Your task to perform on an android device: check out phone information Image 0: 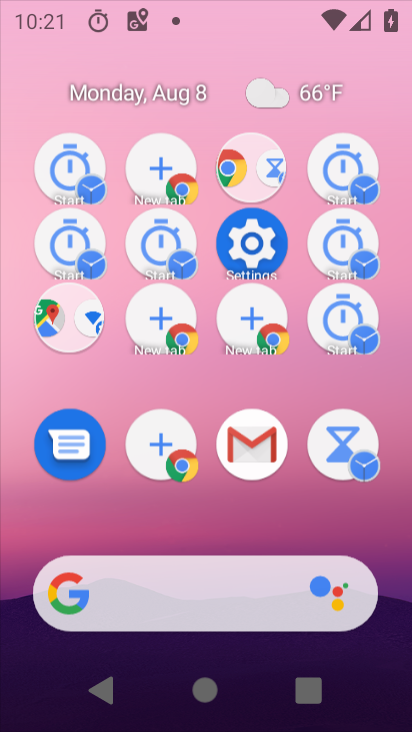
Step 0: drag from (234, 622) to (187, 249)
Your task to perform on an android device: check out phone information Image 1: 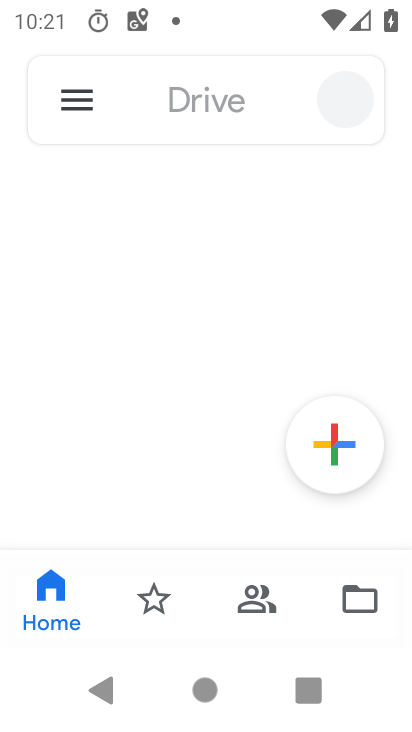
Step 1: drag from (216, 323) to (215, 257)
Your task to perform on an android device: check out phone information Image 2: 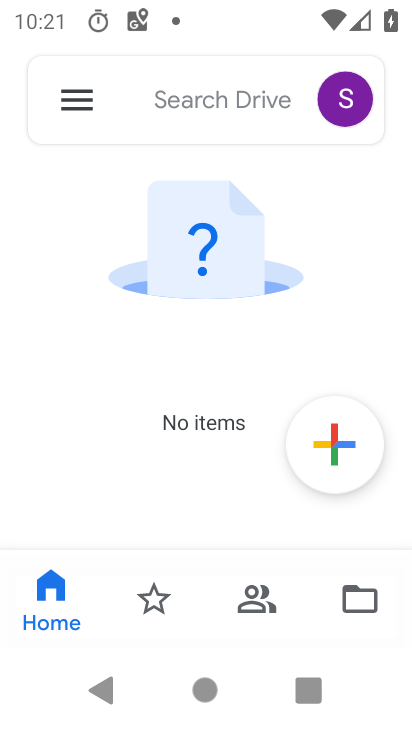
Step 2: press back button
Your task to perform on an android device: check out phone information Image 3: 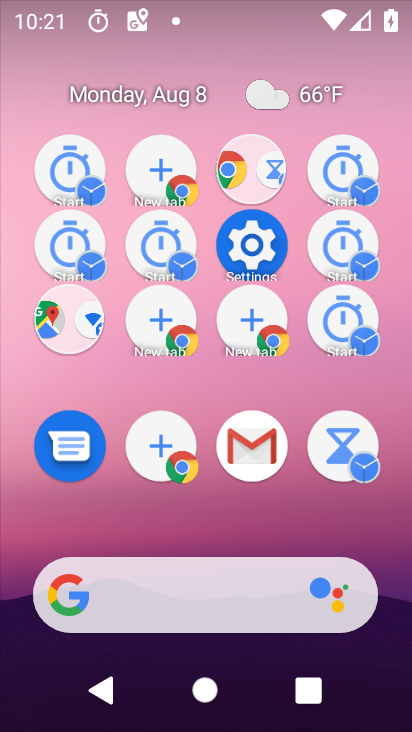
Step 3: drag from (240, 615) to (175, 145)
Your task to perform on an android device: check out phone information Image 4: 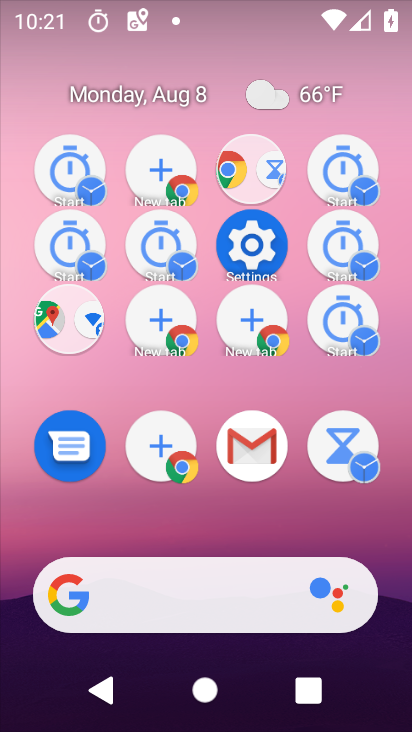
Step 4: click (238, 249)
Your task to perform on an android device: check out phone information Image 5: 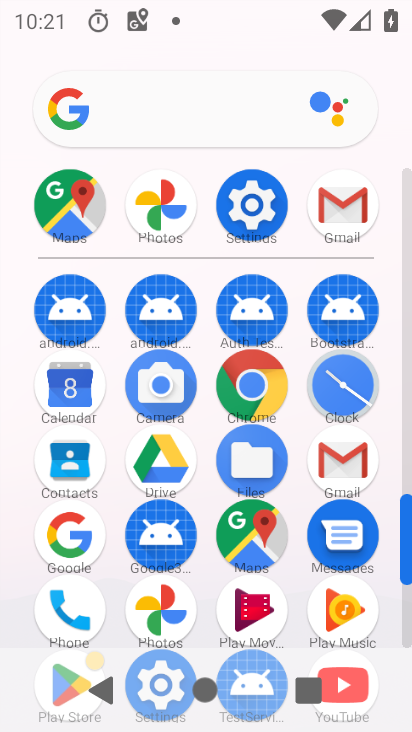
Step 5: drag from (218, 339) to (203, 225)
Your task to perform on an android device: check out phone information Image 6: 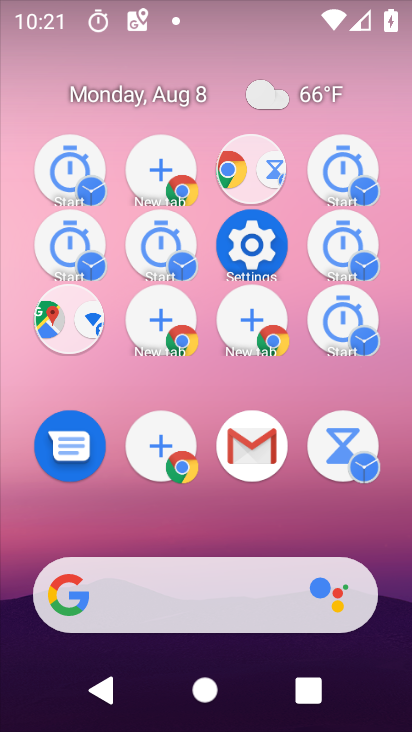
Step 6: click (251, 245)
Your task to perform on an android device: check out phone information Image 7: 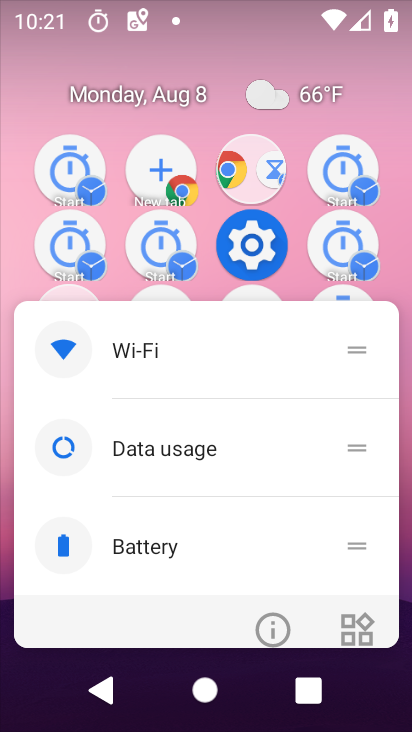
Step 7: click (249, 250)
Your task to perform on an android device: check out phone information Image 8: 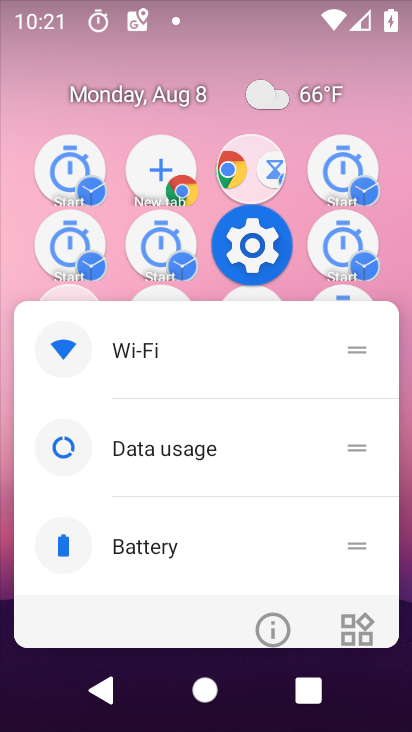
Step 8: click (253, 256)
Your task to perform on an android device: check out phone information Image 9: 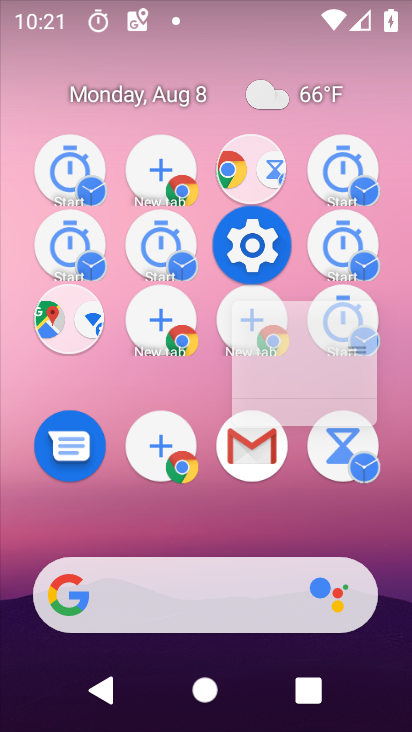
Step 9: click (253, 253)
Your task to perform on an android device: check out phone information Image 10: 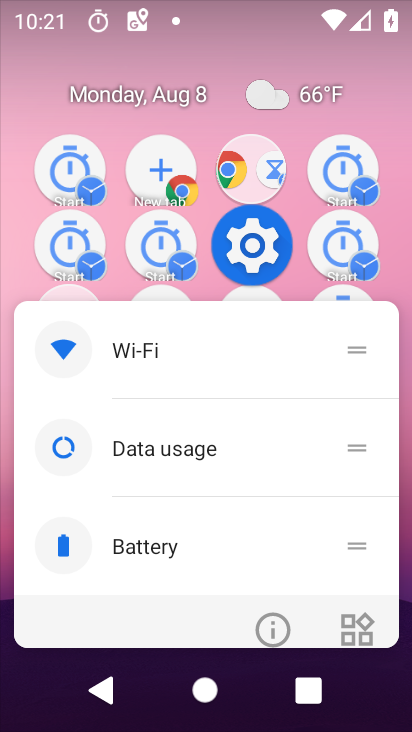
Step 10: click (256, 243)
Your task to perform on an android device: check out phone information Image 11: 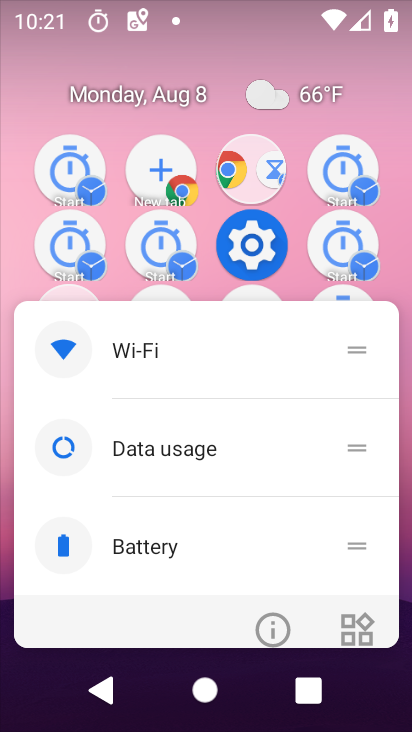
Step 11: press back button
Your task to perform on an android device: check out phone information Image 12: 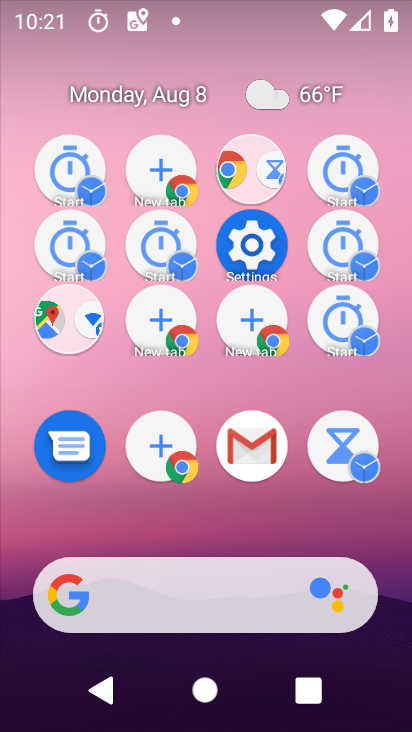
Step 12: click (255, 251)
Your task to perform on an android device: check out phone information Image 13: 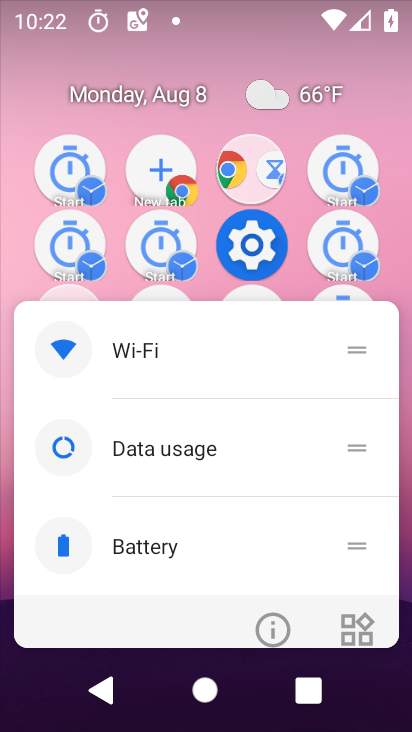
Step 13: click (188, 363)
Your task to perform on an android device: check out phone information Image 14: 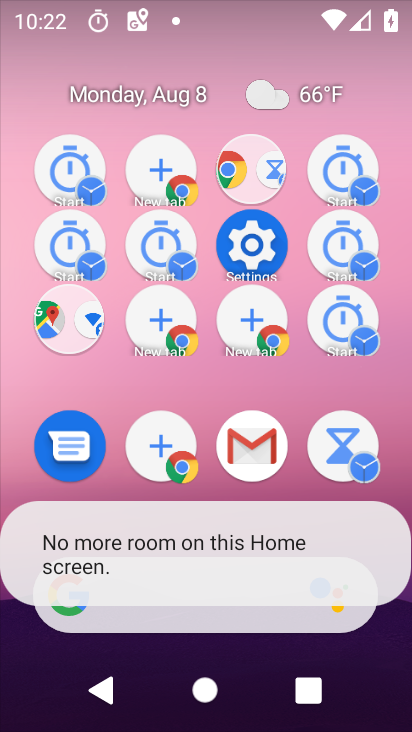
Step 14: press home button
Your task to perform on an android device: check out phone information Image 15: 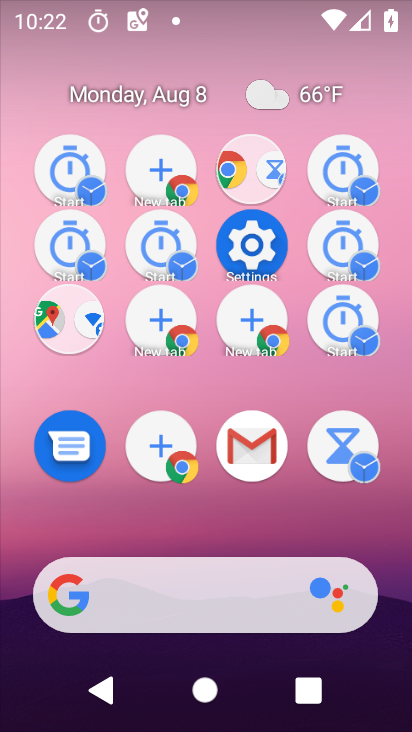
Step 15: drag from (237, 642) to (233, 305)
Your task to perform on an android device: check out phone information Image 16: 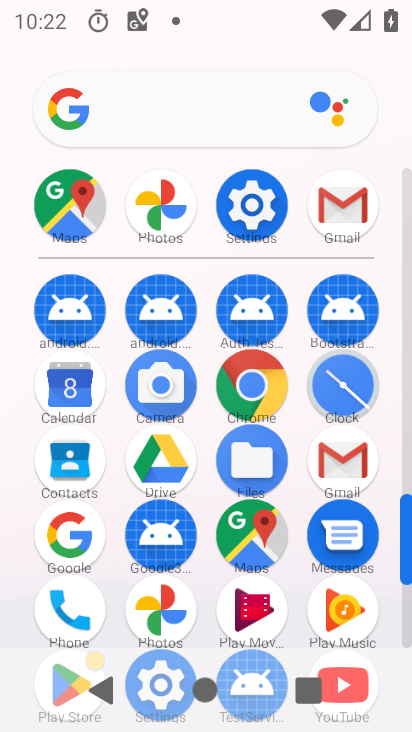
Step 16: click (240, 208)
Your task to perform on an android device: check out phone information Image 17: 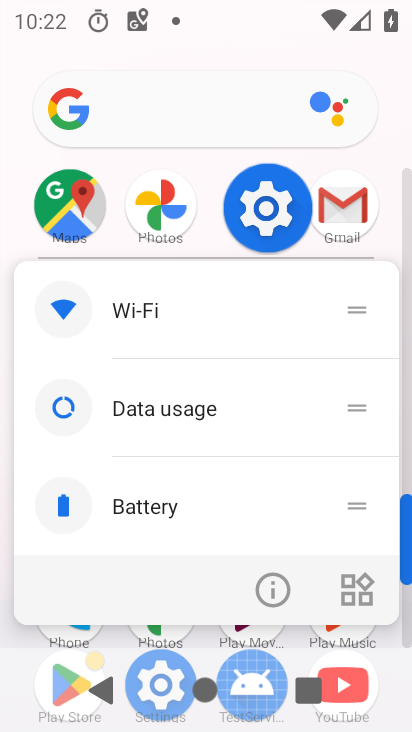
Step 17: click (256, 211)
Your task to perform on an android device: check out phone information Image 18: 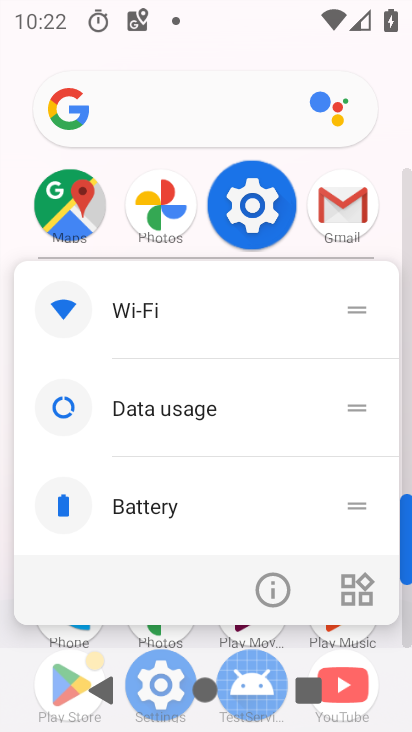
Step 18: click (258, 210)
Your task to perform on an android device: check out phone information Image 19: 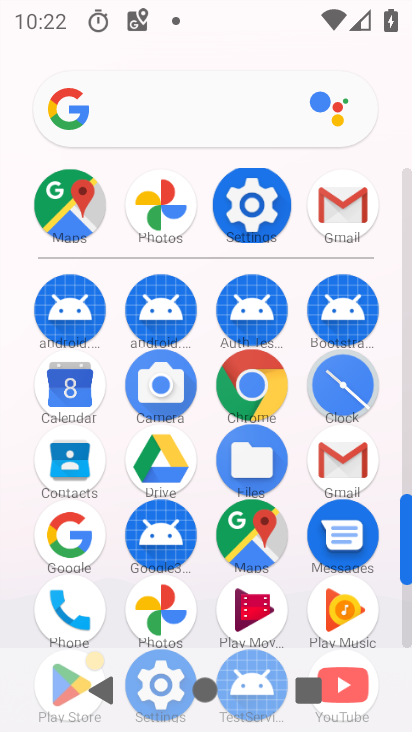
Step 19: click (258, 210)
Your task to perform on an android device: check out phone information Image 20: 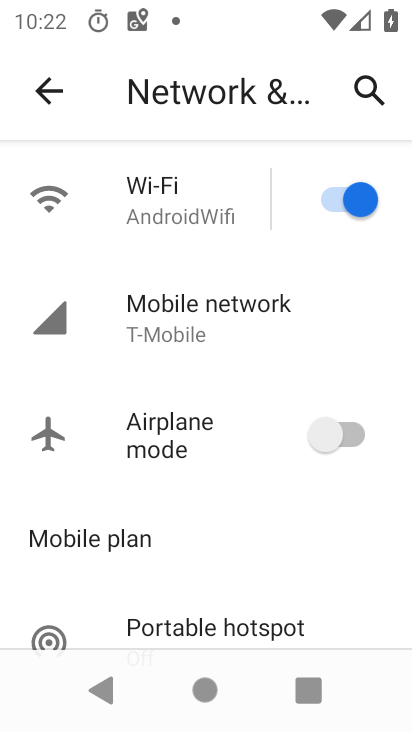
Step 20: click (43, 91)
Your task to perform on an android device: check out phone information Image 21: 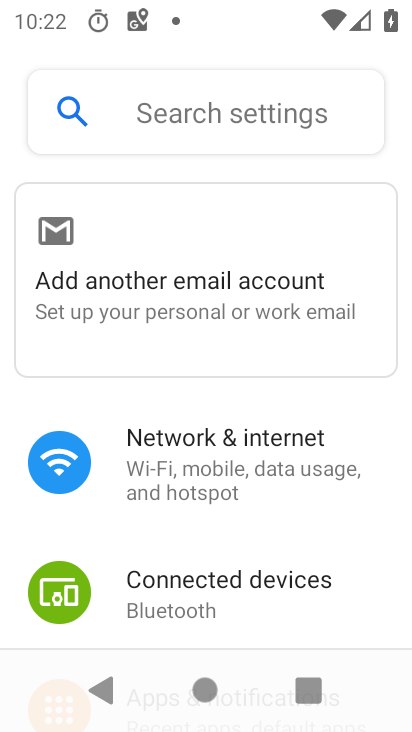
Step 21: drag from (260, 574) to (209, 312)
Your task to perform on an android device: check out phone information Image 22: 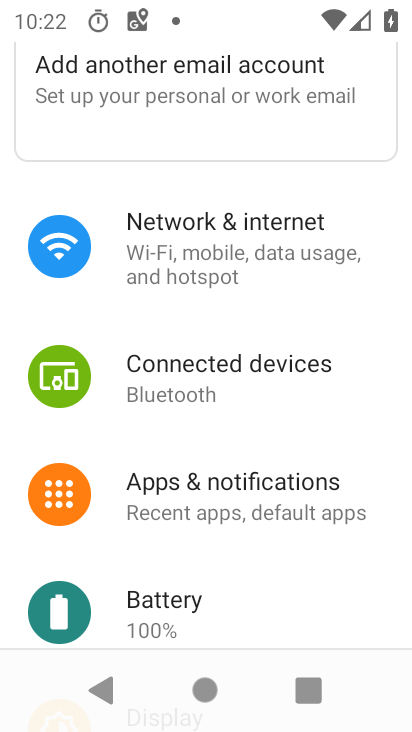
Step 22: drag from (232, 489) to (233, 275)
Your task to perform on an android device: check out phone information Image 23: 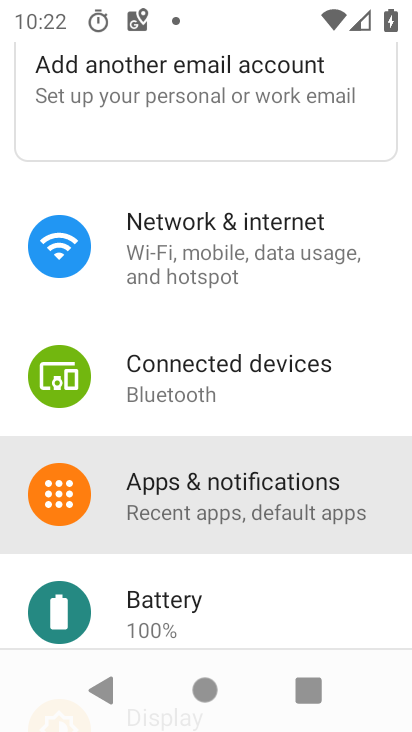
Step 23: drag from (214, 541) to (214, 273)
Your task to perform on an android device: check out phone information Image 24: 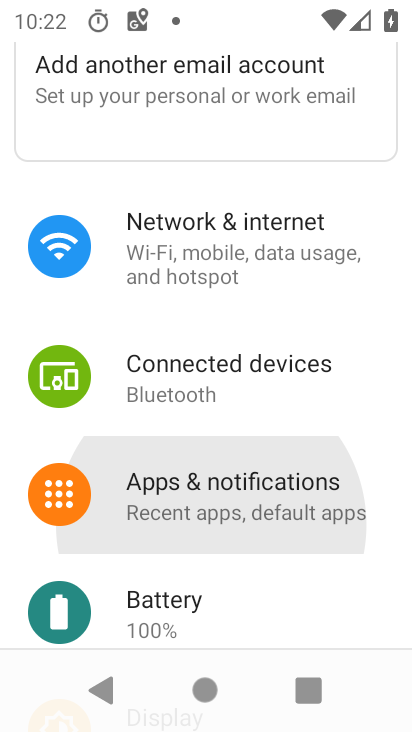
Step 24: drag from (233, 481) to (235, 311)
Your task to perform on an android device: check out phone information Image 25: 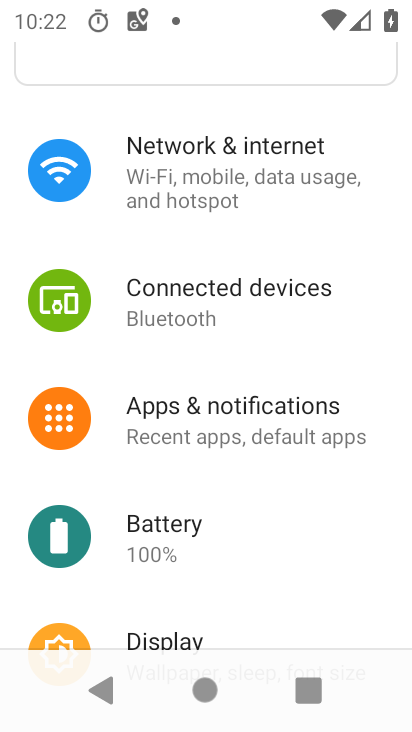
Step 25: drag from (210, 505) to (210, 415)
Your task to perform on an android device: check out phone information Image 26: 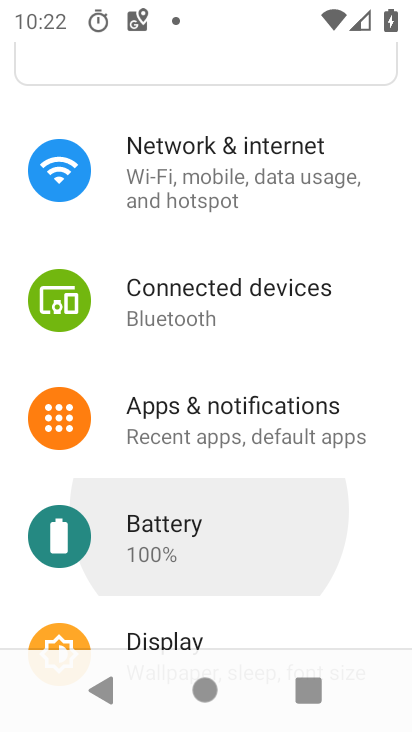
Step 26: drag from (224, 535) to (228, 227)
Your task to perform on an android device: check out phone information Image 27: 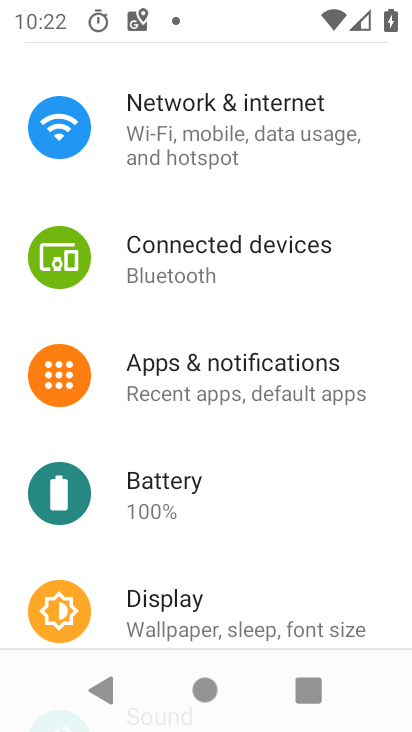
Step 27: drag from (219, 442) to (166, 296)
Your task to perform on an android device: check out phone information Image 28: 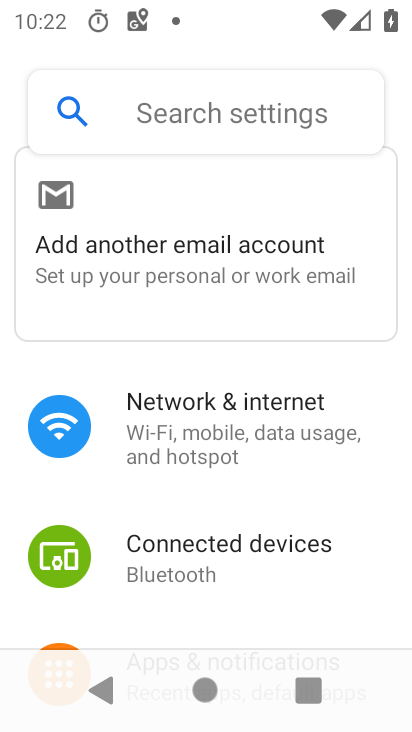
Step 28: drag from (186, 400) to (213, 256)
Your task to perform on an android device: check out phone information Image 29: 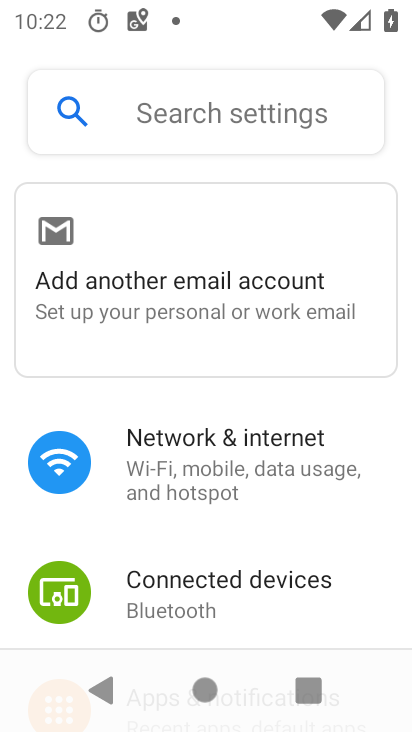
Step 29: drag from (197, 533) to (217, 278)
Your task to perform on an android device: check out phone information Image 30: 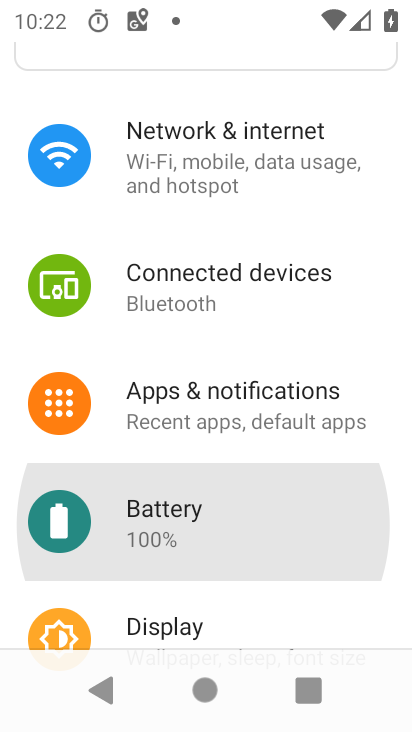
Step 30: drag from (228, 482) to (241, 296)
Your task to perform on an android device: check out phone information Image 31: 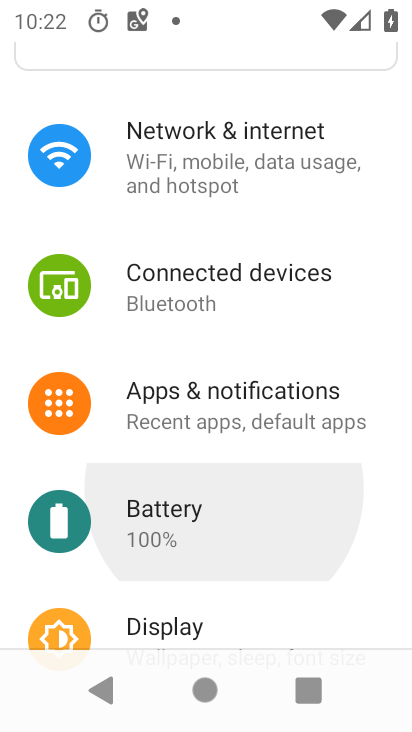
Step 31: drag from (230, 536) to (277, 234)
Your task to perform on an android device: check out phone information Image 32: 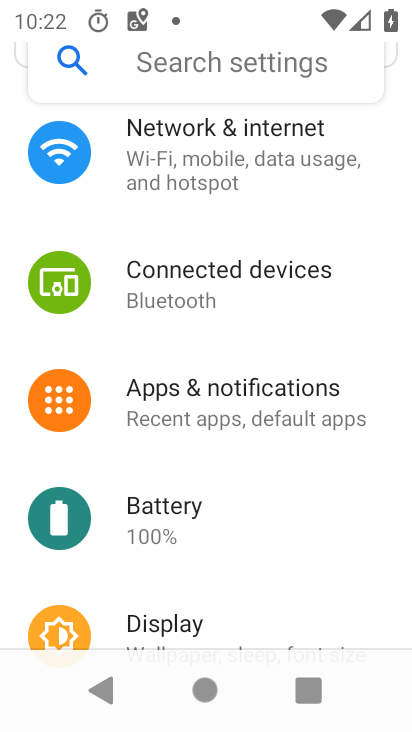
Step 32: drag from (239, 364) to (235, 182)
Your task to perform on an android device: check out phone information Image 33: 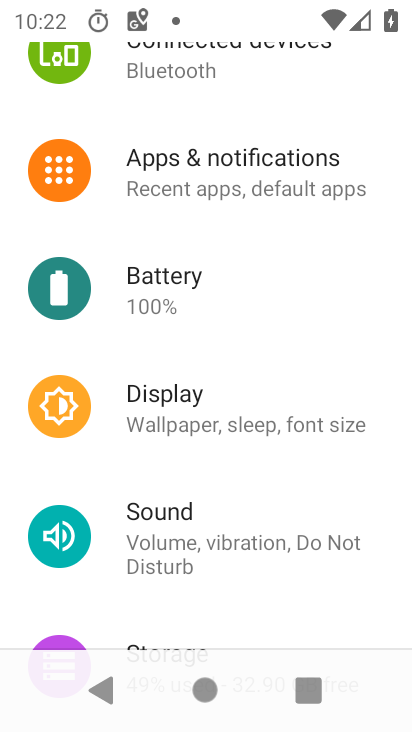
Step 33: drag from (241, 201) to (142, 96)
Your task to perform on an android device: check out phone information Image 34: 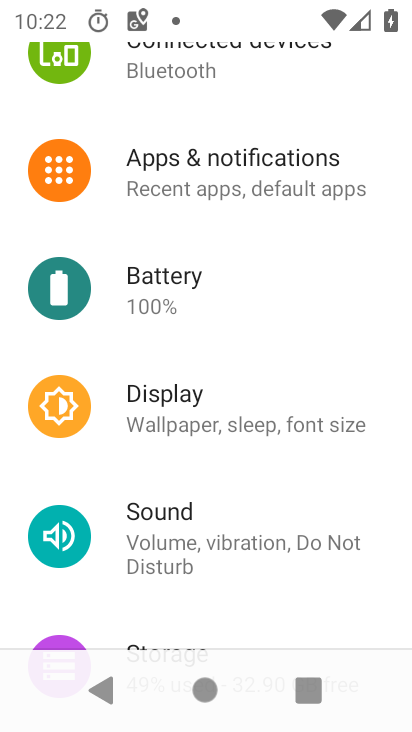
Step 34: drag from (157, 380) to (147, 238)
Your task to perform on an android device: check out phone information Image 35: 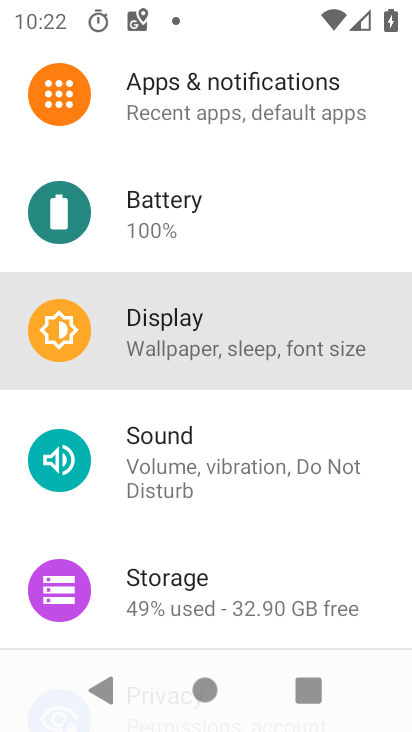
Step 35: drag from (188, 329) to (271, 148)
Your task to perform on an android device: check out phone information Image 36: 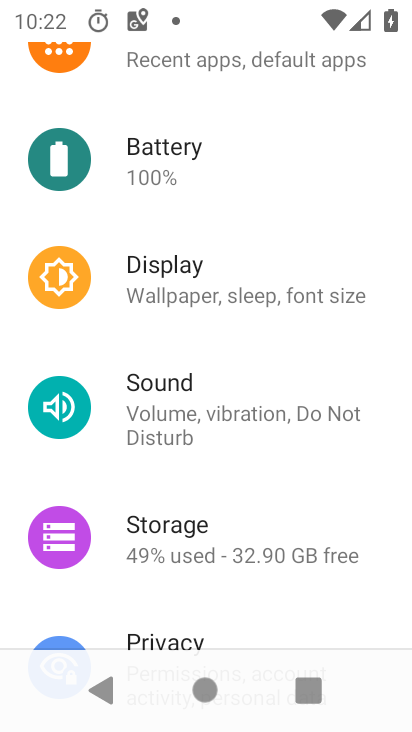
Step 36: drag from (266, 476) to (244, 200)
Your task to perform on an android device: check out phone information Image 37: 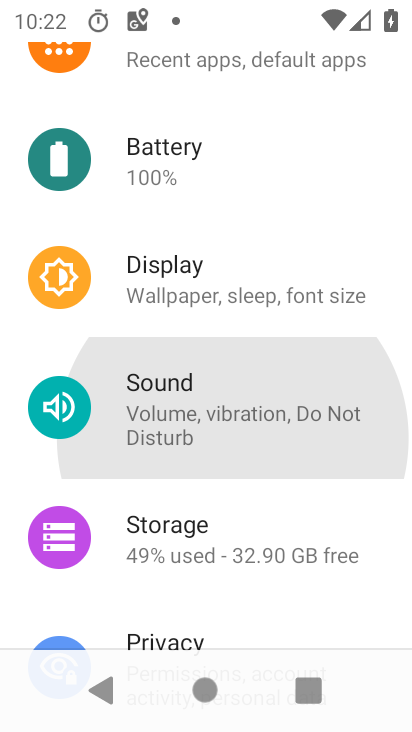
Step 37: drag from (246, 446) to (328, 200)
Your task to perform on an android device: check out phone information Image 38: 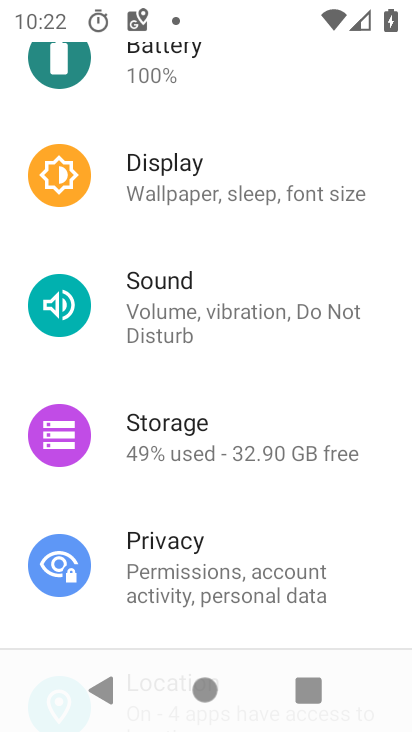
Step 38: drag from (351, 289) to (265, 258)
Your task to perform on an android device: check out phone information Image 39: 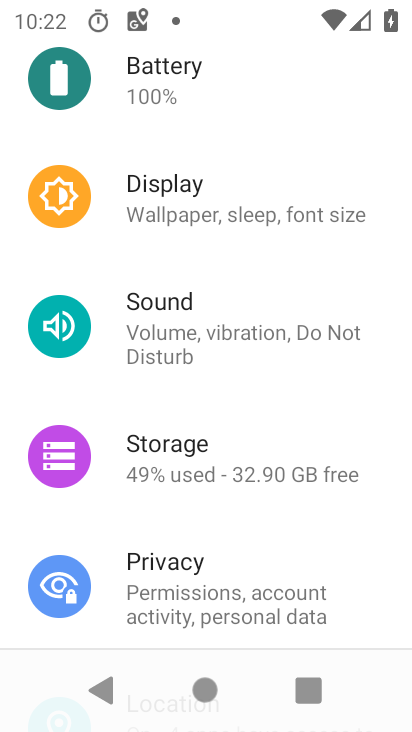
Step 39: drag from (262, 533) to (177, 173)
Your task to perform on an android device: check out phone information Image 40: 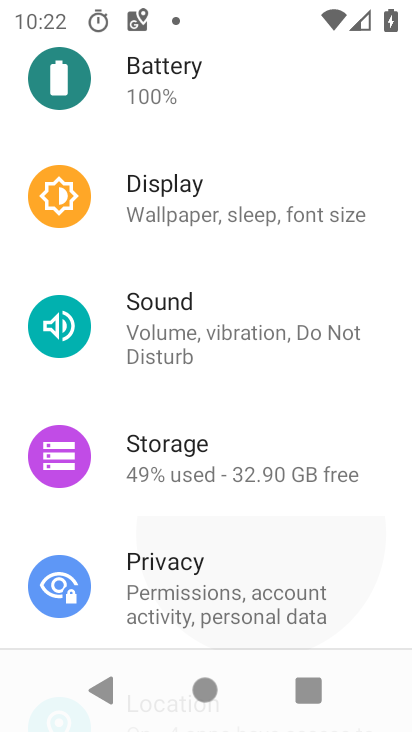
Step 40: drag from (164, 436) to (273, 218)
Your task to perform on an android device: check out phone information Image 41: 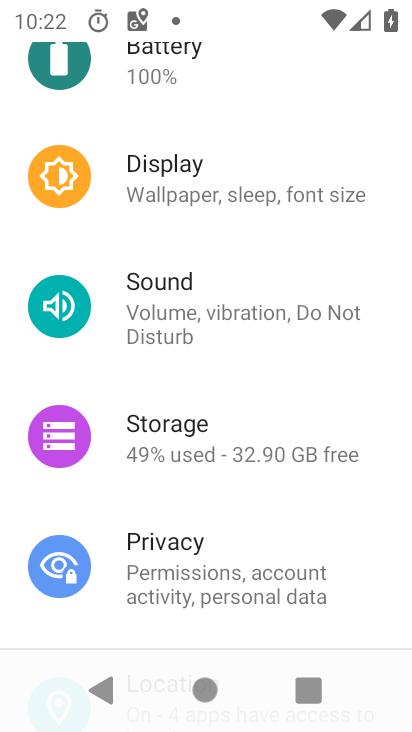
Step 41: click (245, 318)
Your task to perform on an android device: check out phone information Image 42: 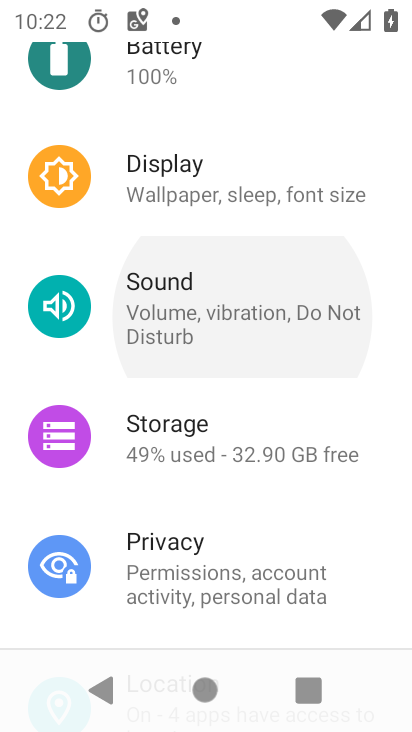
Step 42: drag from (231, 185) to (233, 358)
Your task to perform on an android device: check out phone information Image 43: 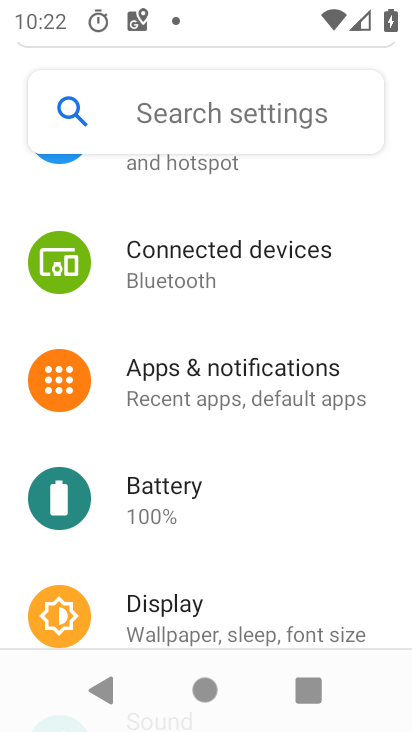
Step 43: click (303, 329)
Your task to perform on an android device: check out phone information Image 44: 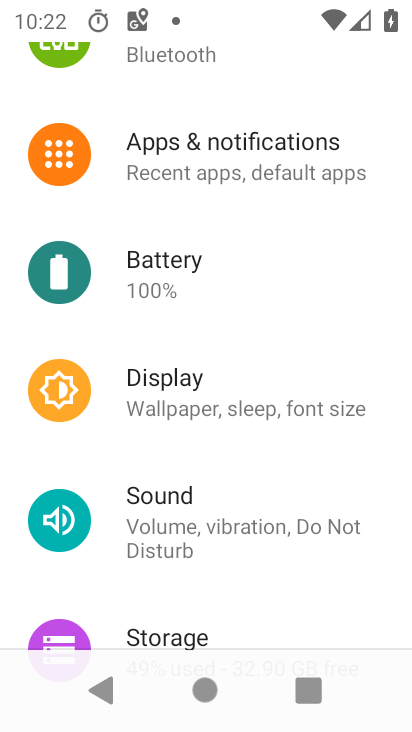
Step 44: drag from (303, 508) to (285, 238)
Your task to perform on an android device: check out phone information Image 45: 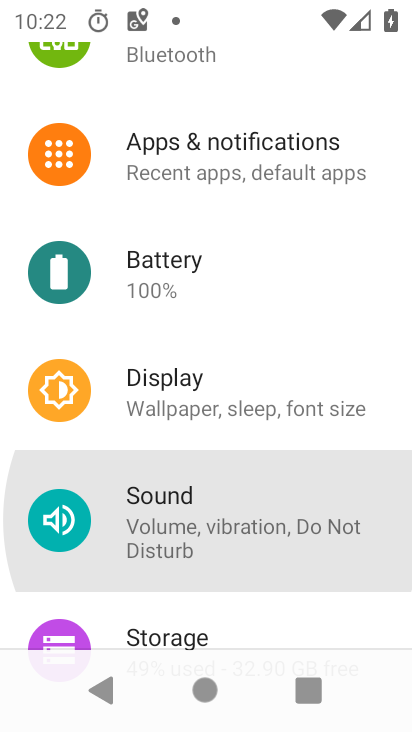
Step 45: drag from (280, 407) to (278, 230)
Your task to perform on an android device: check out phone information Image 46: 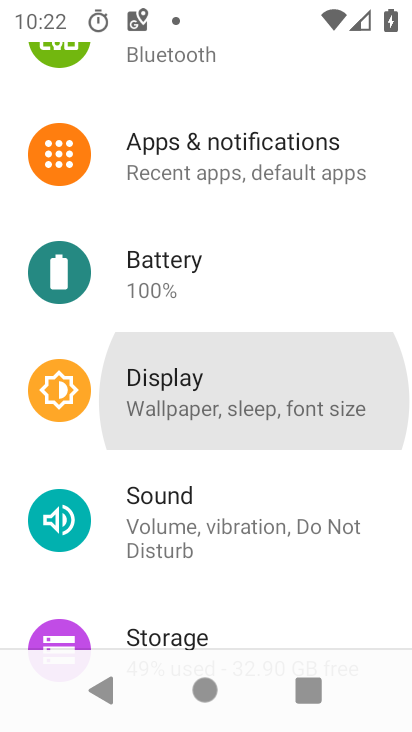
Step 46: drag from (257, 319) to (291, 264)
Your task to perform on an android device: check out phone information Image 47: 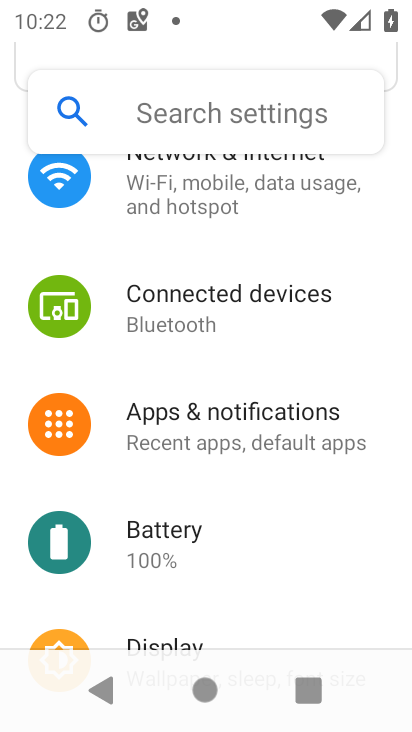
Step 47: drag from (255, 183) to (310, 203)
Your task to perform on an android device: check out phone information Image 48: 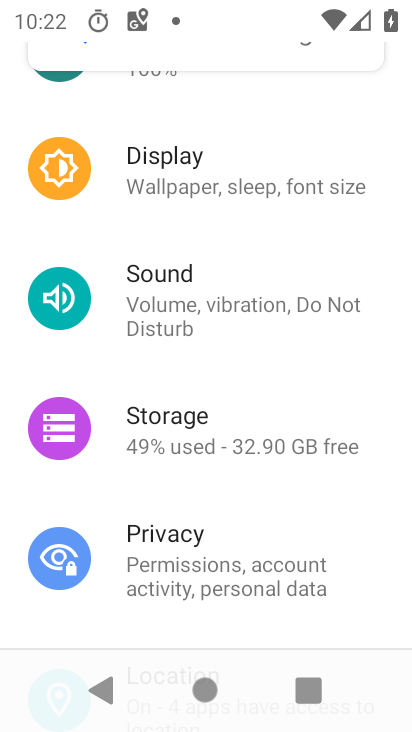
Step 48: drag from (285, 453) to (285, 133)
Your task to perform on an android device: check out phone information Image 49: 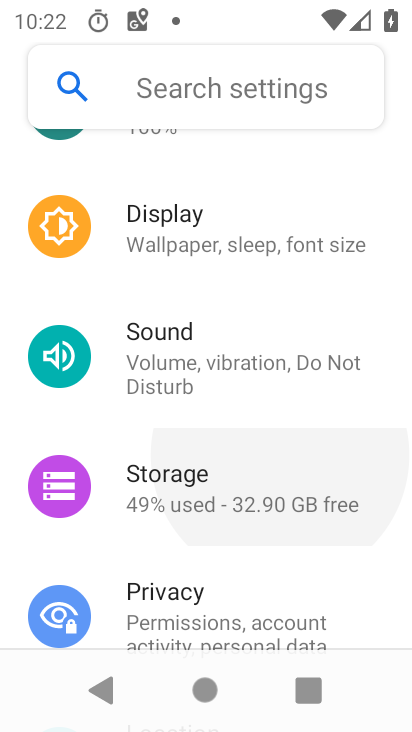
Step 49: drag from (264, 456) to (262, 288)
Your task to perform on an android device: check out phone information Image 50: 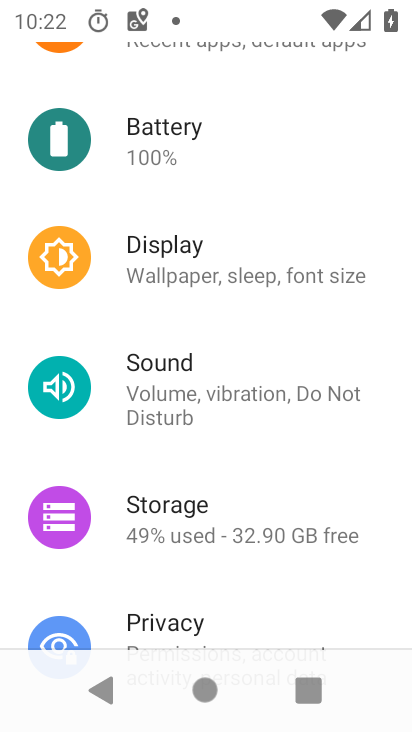
Step 50: drag from (261, 233) to (264, 156)
Your task to perform on an android device: check out phone information Image 51: 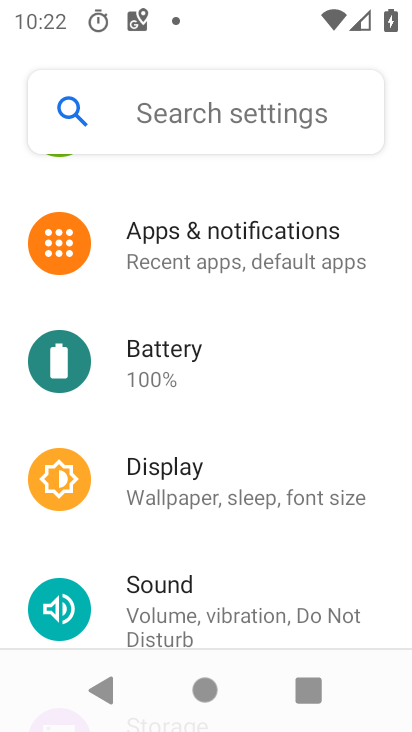
Step 51: drag from (258, 277) to (258, 214)
Your task to perform on an android device: check out phone information Image 52: 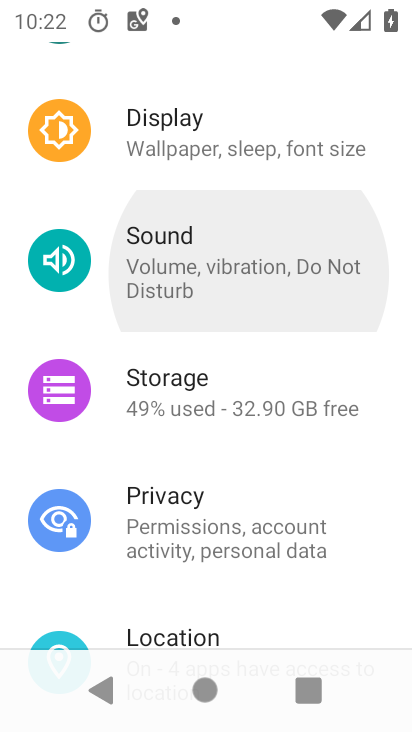
Step 52: drag from (239, 537) to (221, 233)
Your task to perform on an android device: check out phone information Image 53: 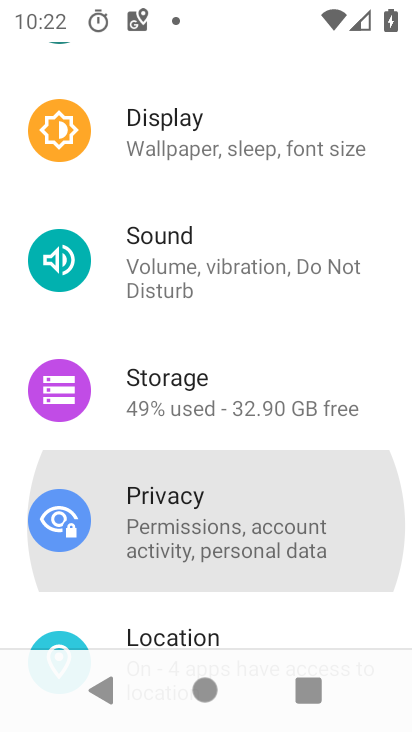
Step 53: drag from (279, 576) to (298, 183)
Your task to perform on an android device: check out phone information Image 54: 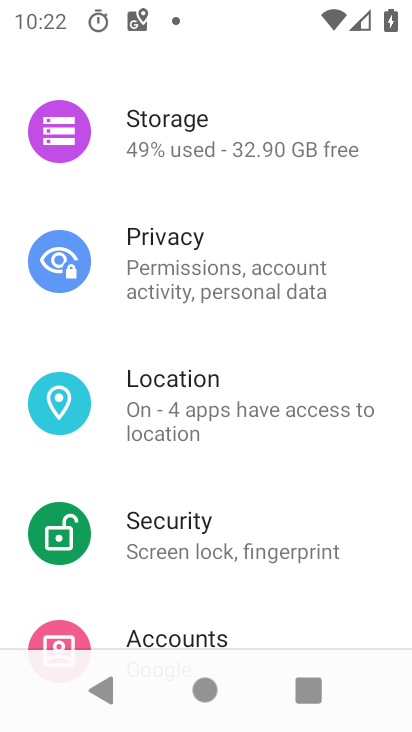
Step 54: drag from (273, 475) to (273, 201)
Your task to perform on an android device: check out phone information Image 55: 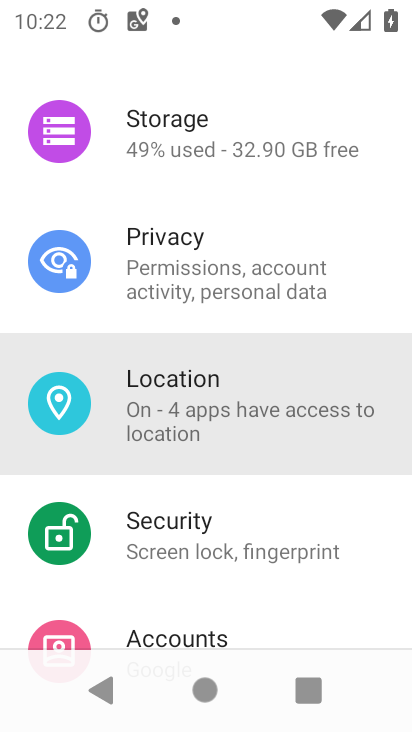
Step 55: click (250, 144)
Your task to perform on an android device: check out phone information Image 56: 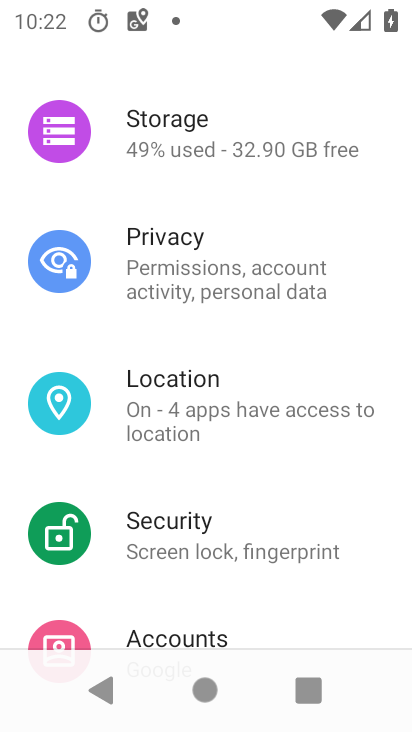
Step 56: drag from (197, 523) to (247, 157)
Your task to perform on an android device: check out phone information Image 57: 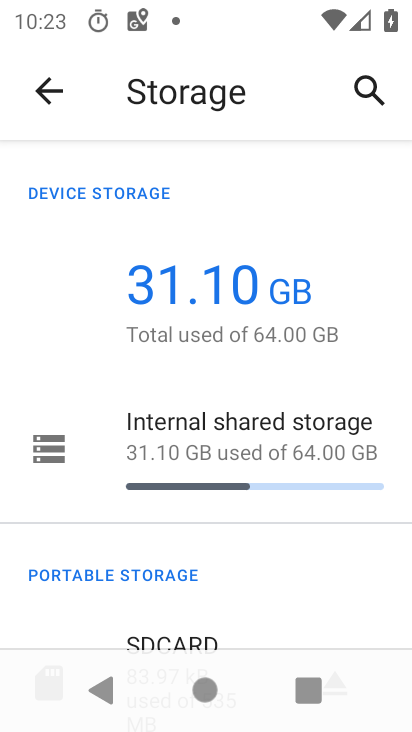
Step 57: click (56, 83)
Your task to perform on an android device: check out phone information Image 58: 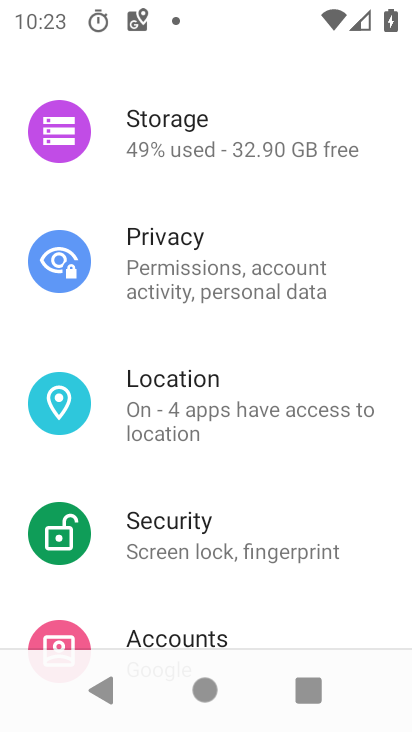
Step 58: click (151, 353)
Your task to perform on an android device: check out phone information Image 59: 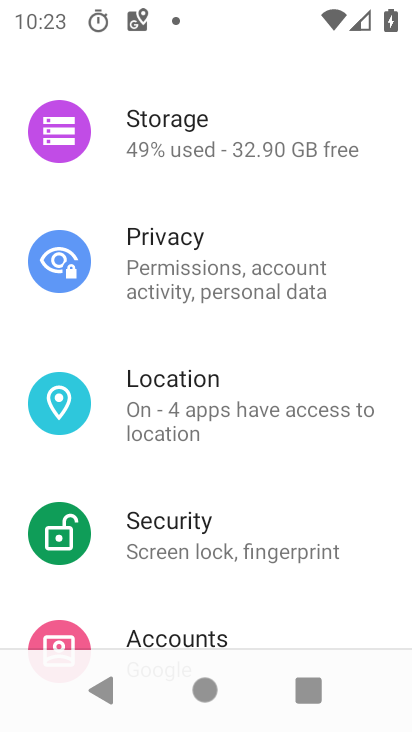
Step 59: drag from (224, 521) to (261, 273)
Your task to perform on an android device: check out phone information Image 60: 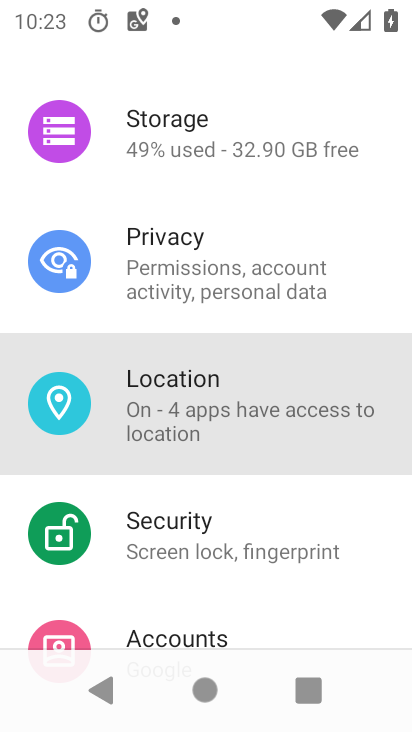
Step 60: drag from (269, 384) to (269, 224)
Your task to perform on an android device: check out phone information Image 61: 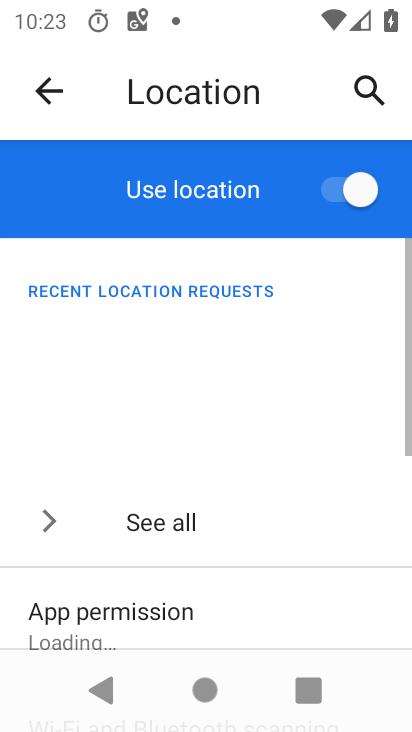
Step 61: drag from (253, 468) to (255, 236)
Your task to perform on an android device: check out phone information Image 62: 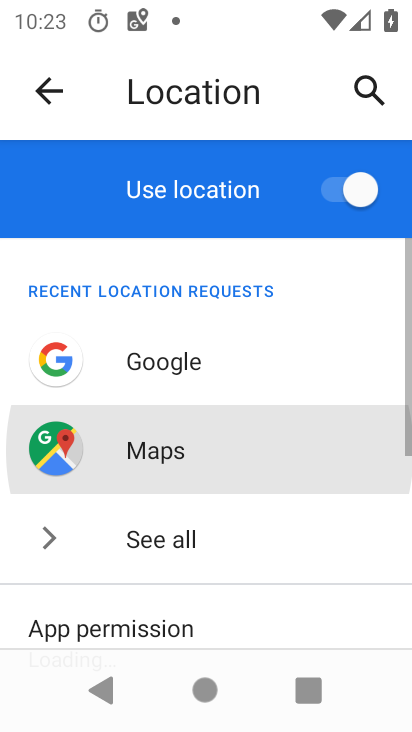
Step 62: drag from (249, 410) to (232, 267)
Your task to perform on an android device: check out phone information Image 63: 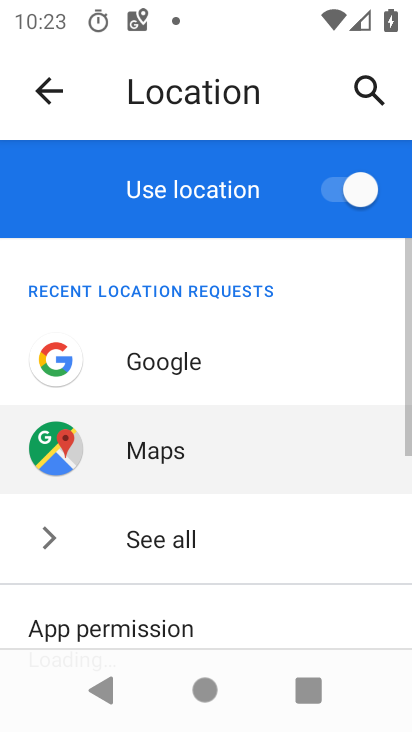
Step 63: click (52, 75)
Your task to perform on an android device: check out phone information Image 64: 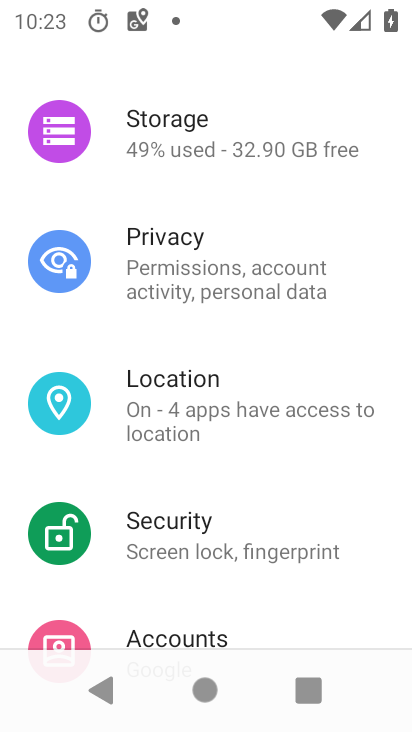
Step 64: drag from (209, 550) to (165, 186)
Your task to perform on an android device: check out phone information Image 65: 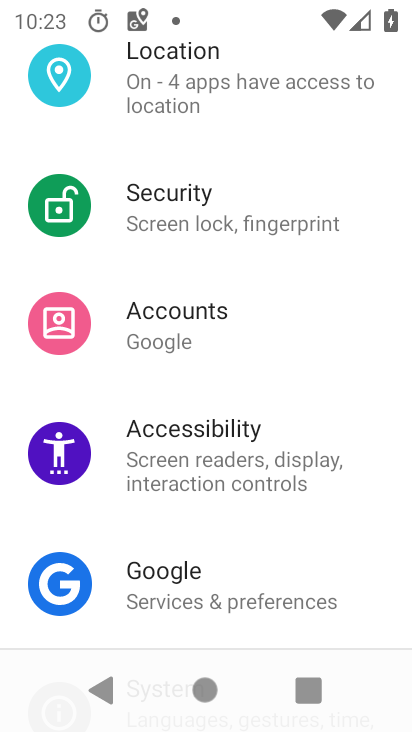
Step 65: drag from (205, 427) to (207, 191)
Your task to perform on an android device: check out phone information Image 66: 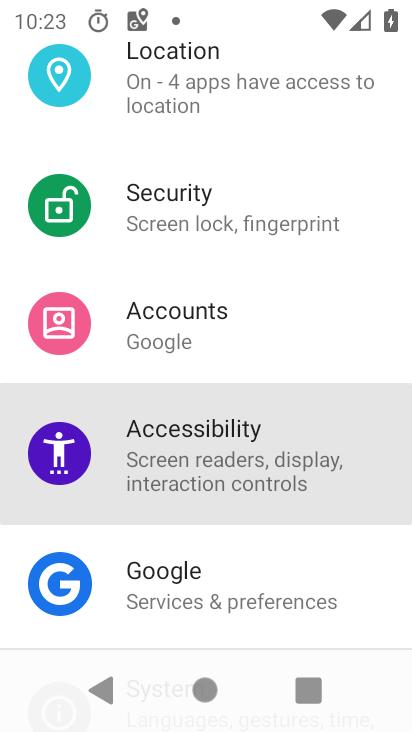
Step 66: drag from (228, 479) to (227, 135)
Your task to perform on an android device: check out phone information Image 67: 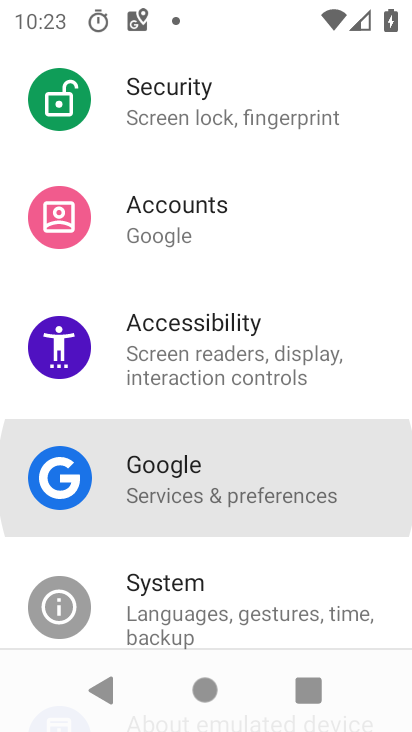
Step 67: drag from (218, 429) to (237, 69)
Your task to perform on an android device: check out phone information Image 68: 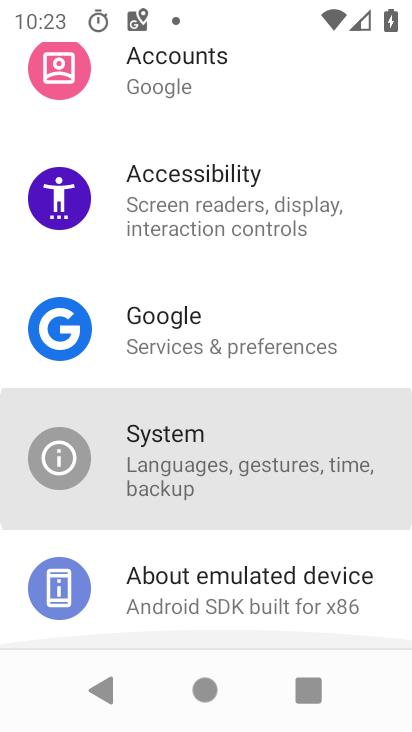
Step 68: drag from (188, 507) to (220, 156)
Your task to perform on an android device: check out phone information Image 69: 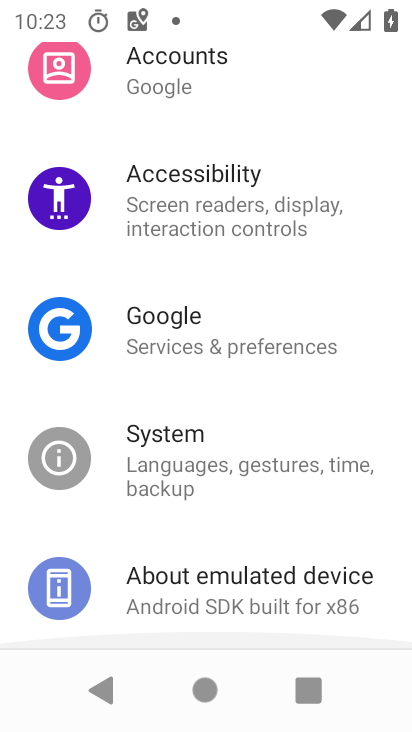
Step 69: drag from (294, 228) to (304, 188)
Your task to perform on an android device: check out phone information Image 70: 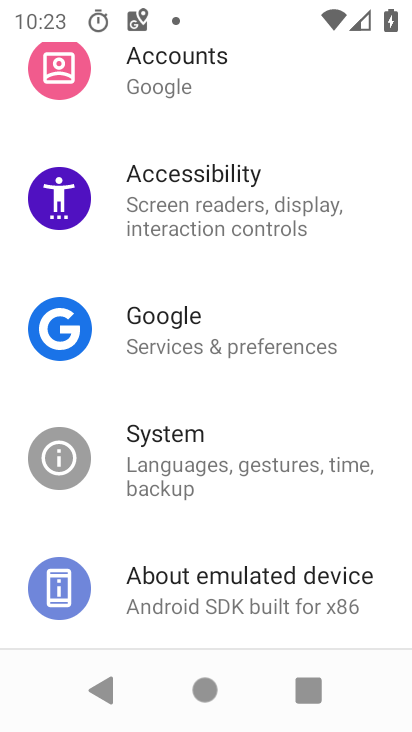
Step 70: click (243, 599)
Your task to perform on an android device: check out phone information Image 71: 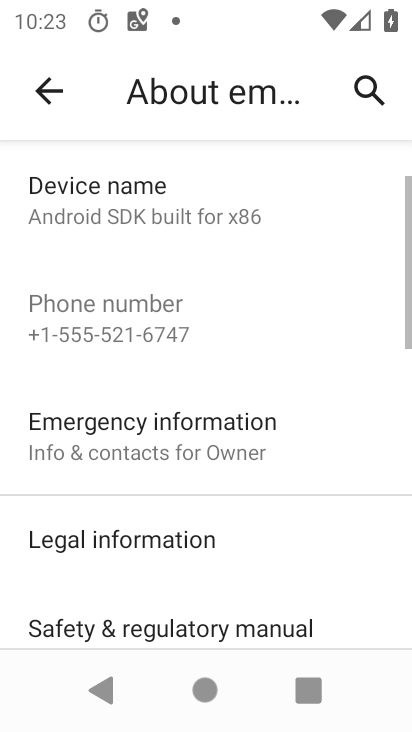
Step 71: click (147, 444)
Your task to perform on an android device: check out phone information Image 72: 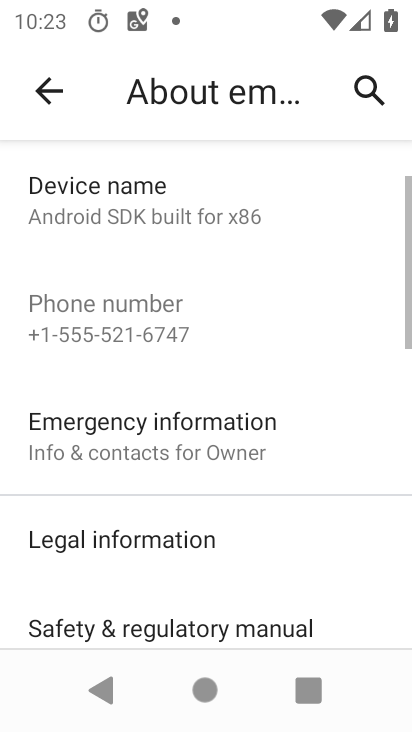
Step 72: click (147, 444)
Your task to perform on an android device: check out phone information Image 73: 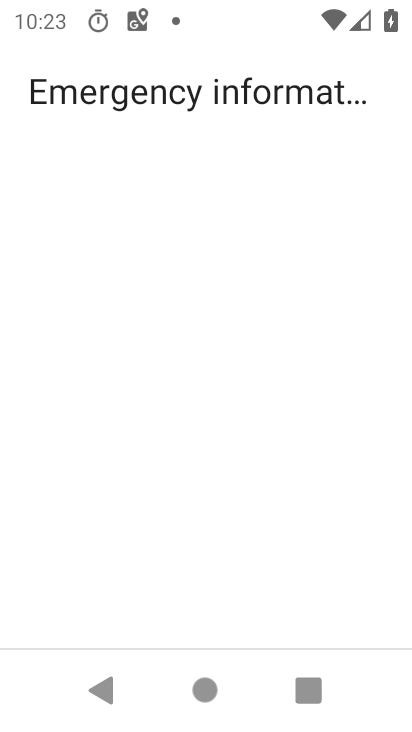
Step 73: click (148, 444)
Your task to perform on an android device: check out phone information Image 74: 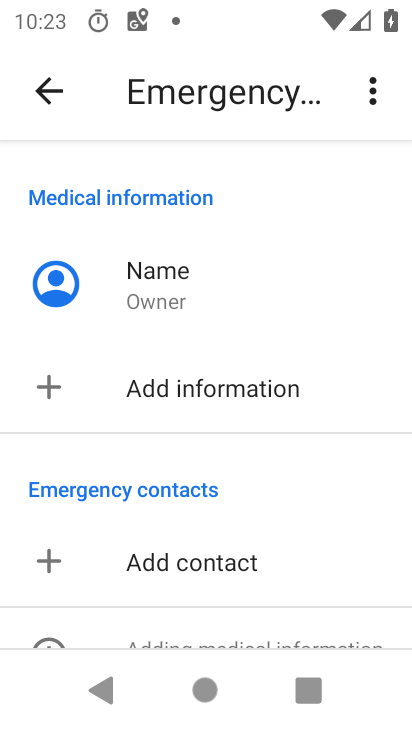
Step 74: task complete